Your task to perform on an android device: Open my contact list Image 0: 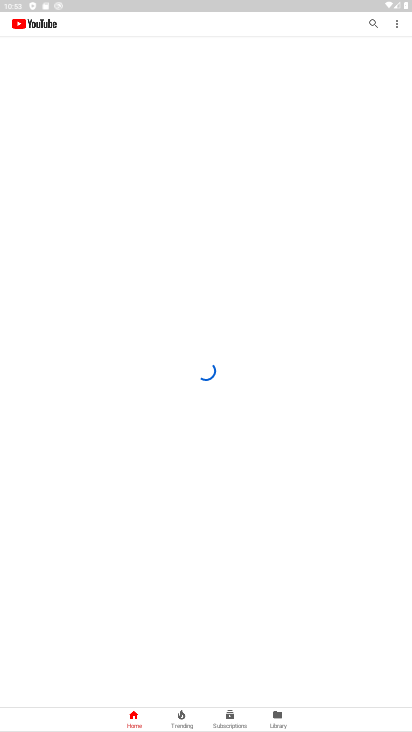
Step 0: press home button
Your task to perform on an android device: Open my contact list Image 1: 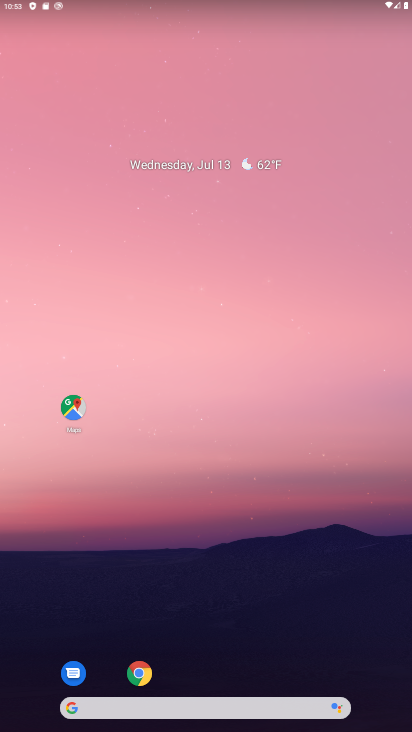
Step 1: drag from (220, 669) to (260, 210)
Your task to perform on an android device: Open my contact list Image 2: 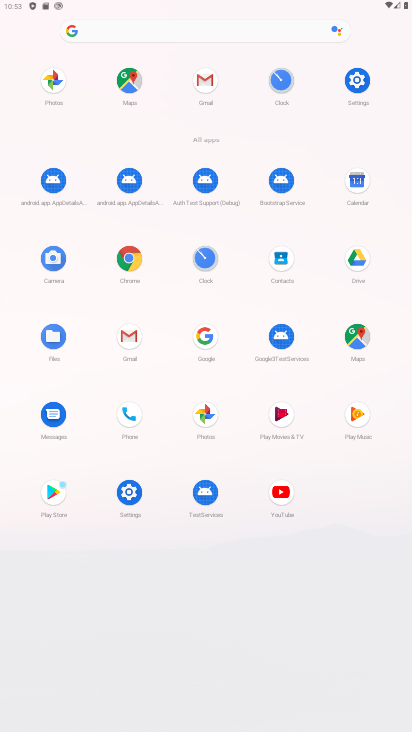
Step 2: click (280, 262)
Your task to perform on an android device: Open my contact list Image 3: 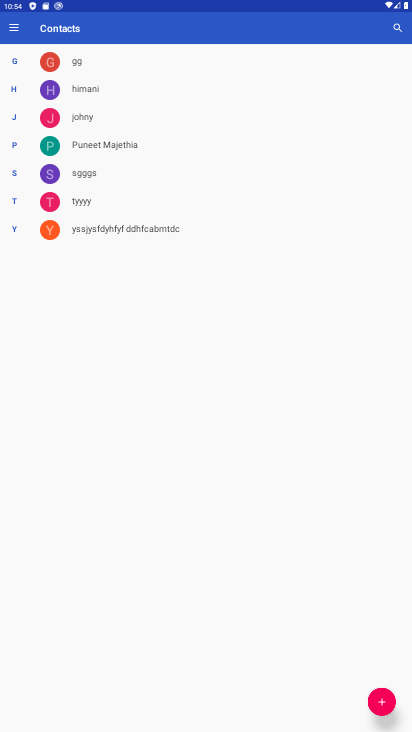
Step 3: task complete